Your task to perform on an android device: allow cookies in the chrome app Image 0: 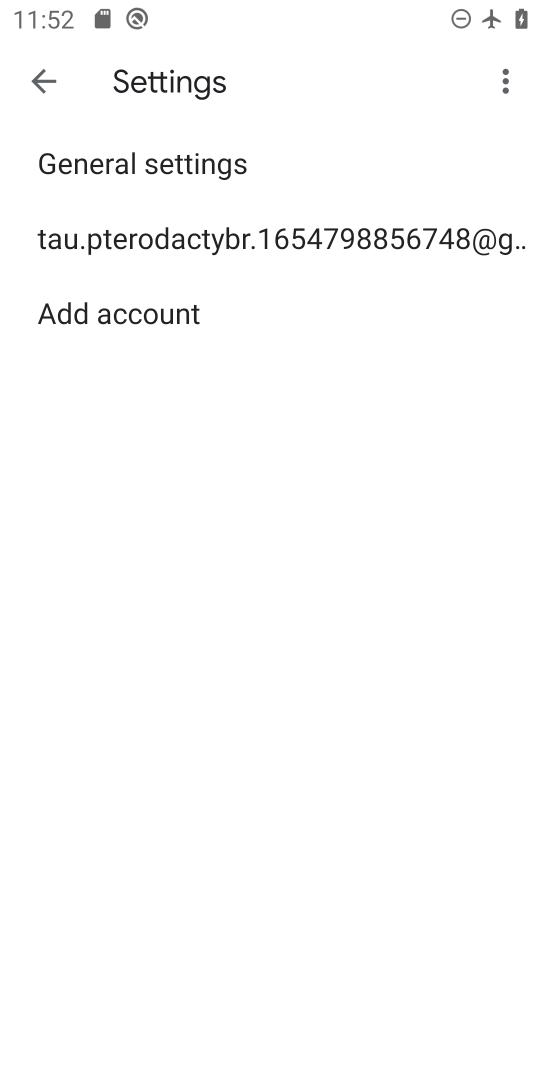
Step 0: press home button
Your task to perform on an android device: allow cookies in the chrome app Image 1: 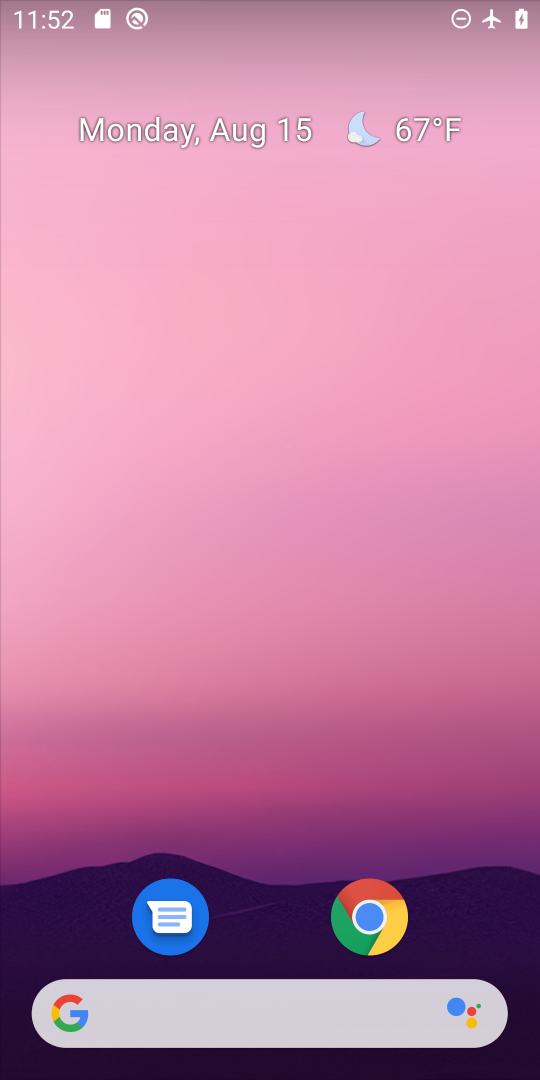
Step 1: click (371, 907)
Your task to perform on an android device: allow cookies in the chrome app Image 2: 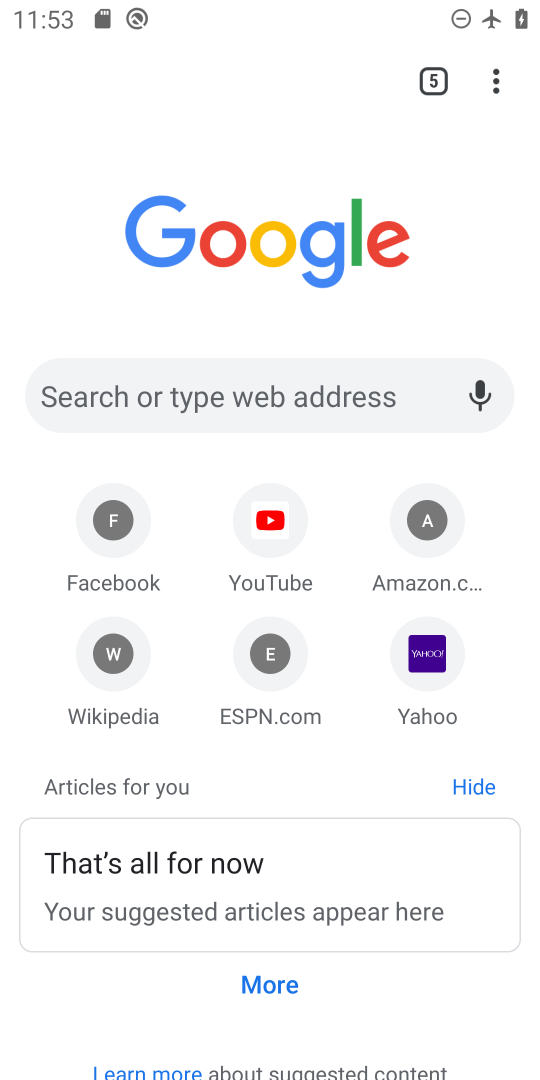
Step 2: click (490, 82)
Your task to perform on an android device: allow cookies in the chrome app Image 3: 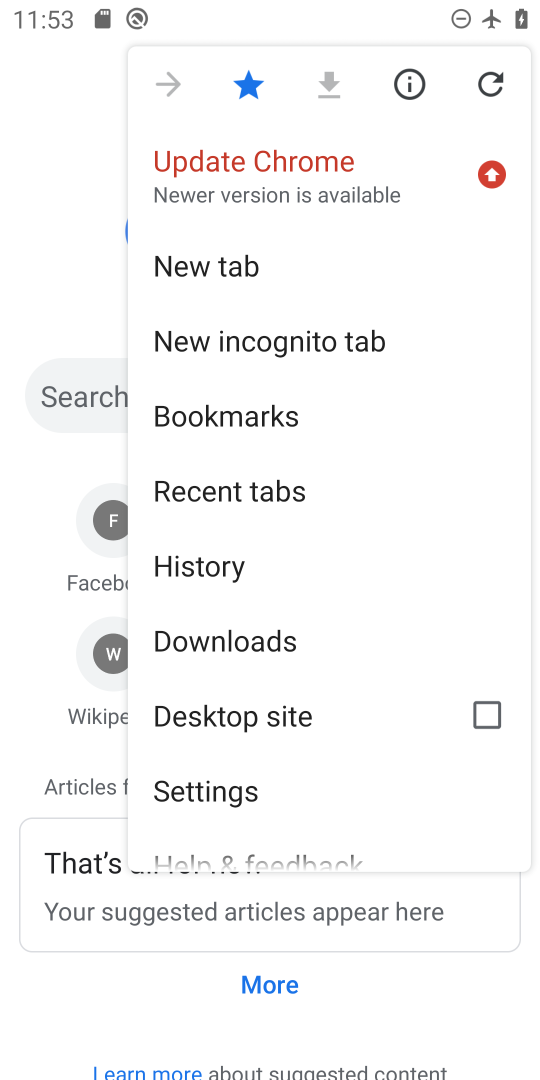
Step 3: click (247, 785)
Your task to perform on an android device: allow cookies in the chrome app Image 4: 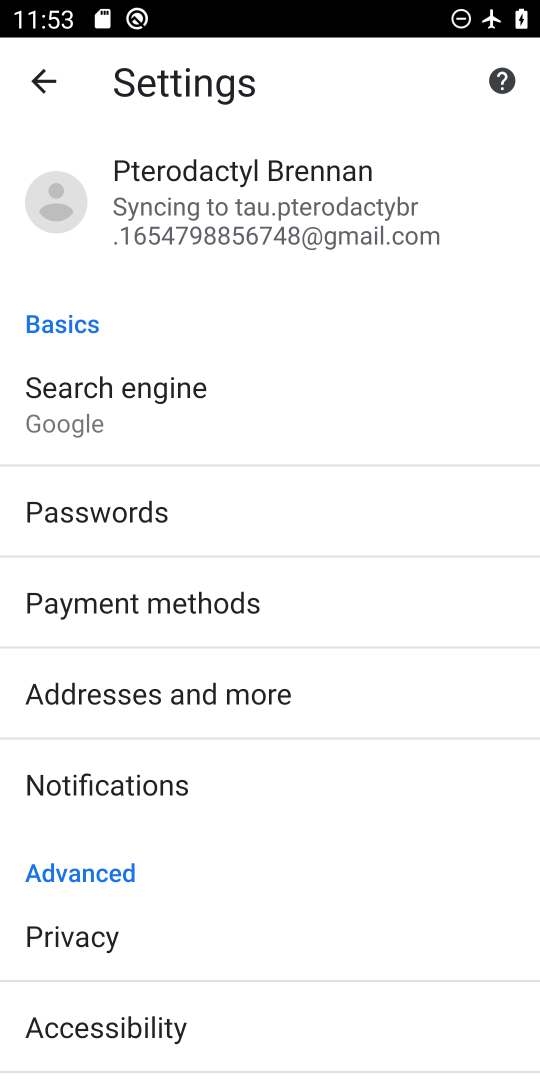
Step 4: drag from (300, 928) to (351, 364)
Your task to perform on an android device: allow cookies in the chrome app Image 5: 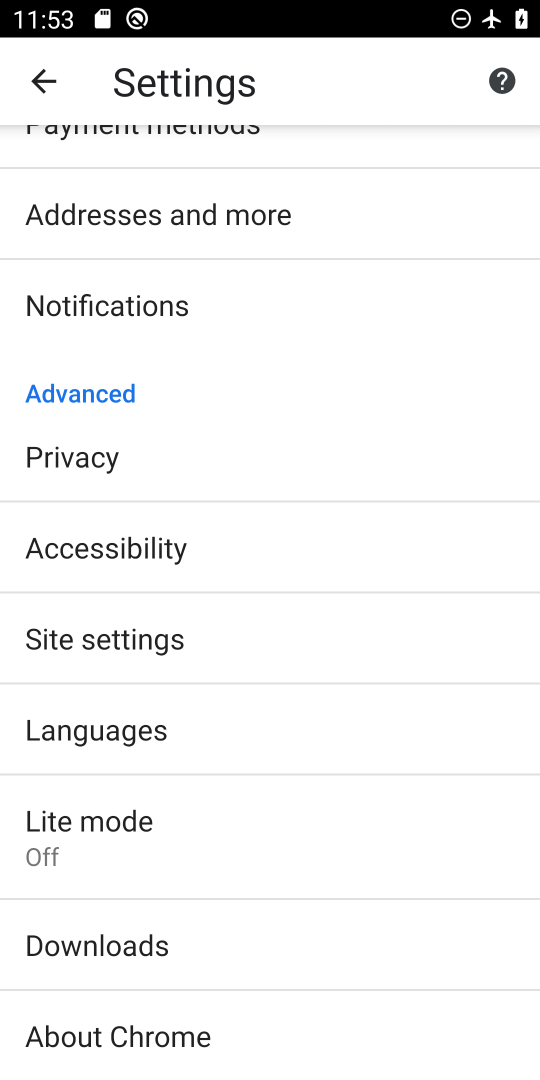
Step 5: click (233, 633)
Your task to perform on an android device: allow cookies in the chrome app Image 6: 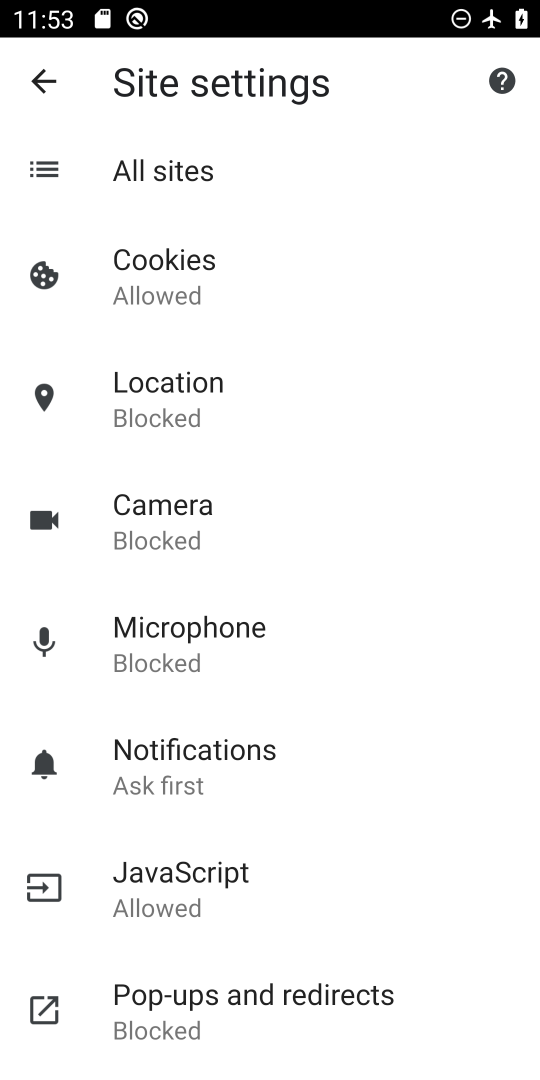
Step 6: click (192, 274)
Your task to perform on an android device: allow cookies in the chrome app Image 7: 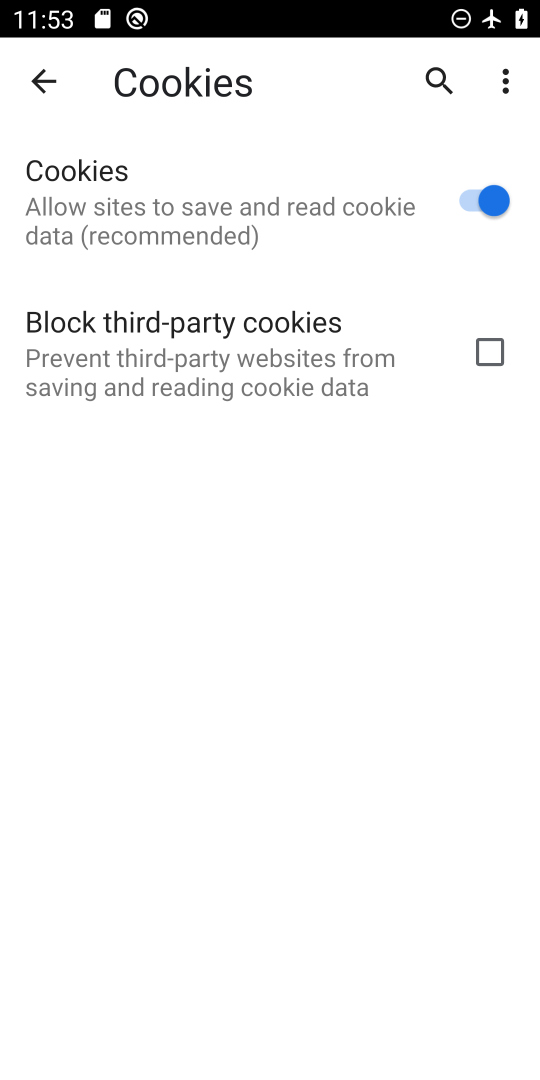
Step 7: task complete